Your task to perform on an android device: open app "The Home Depot" Image 0: 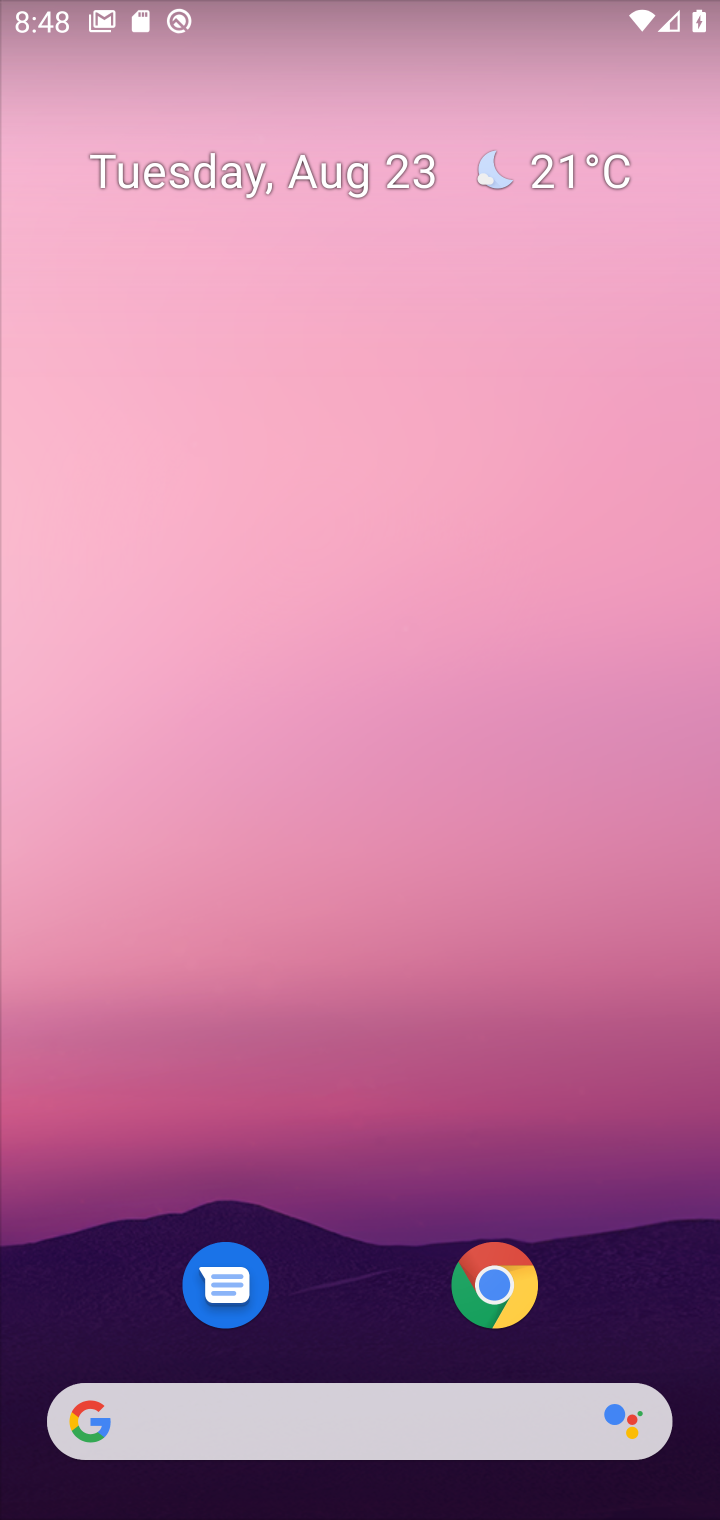
Step 0: drag from (678, 1275) to (550, 265)
Your task to perform on an android device: open app "The Home Depot" Image 1: 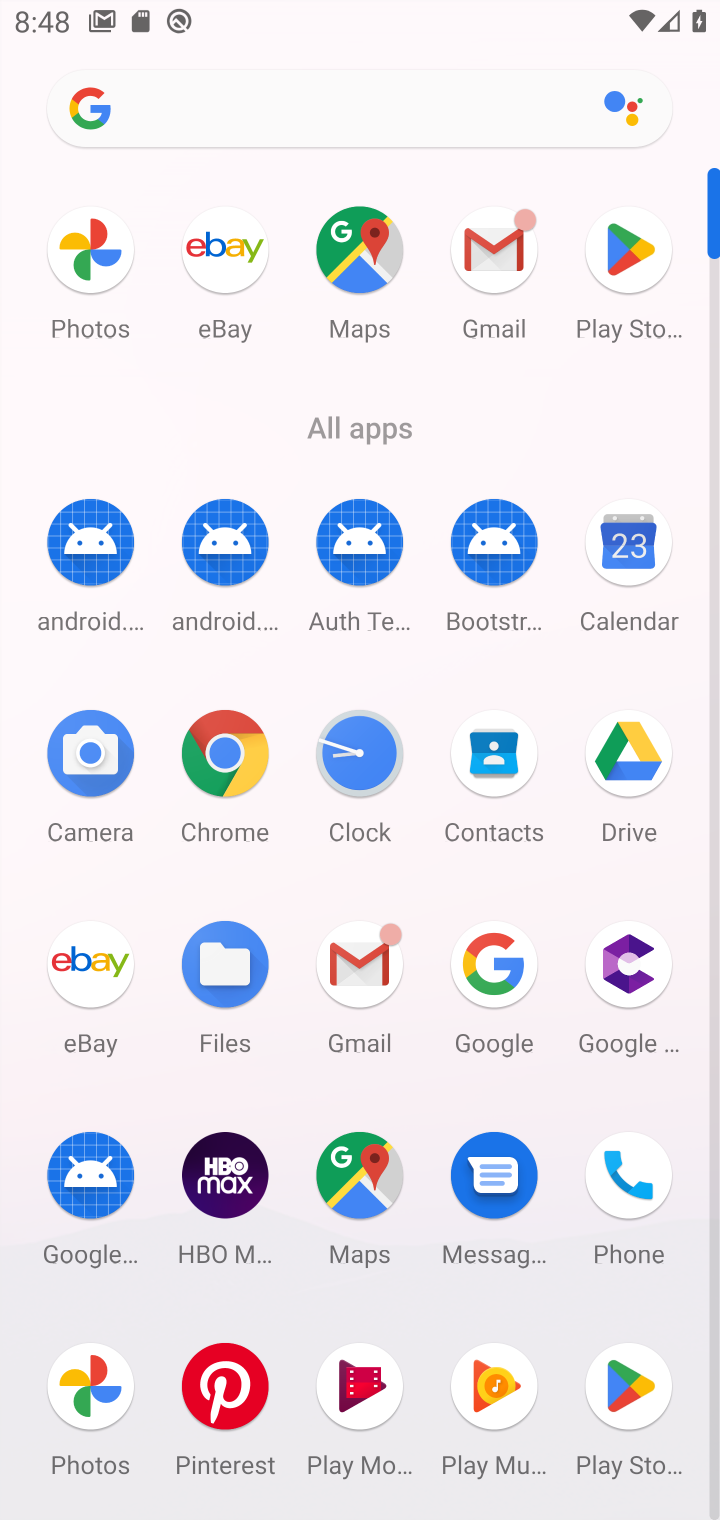
Step 1: click (633, 1387)
Your task to perform on an android device: open app "The Home Depot" Image 2: 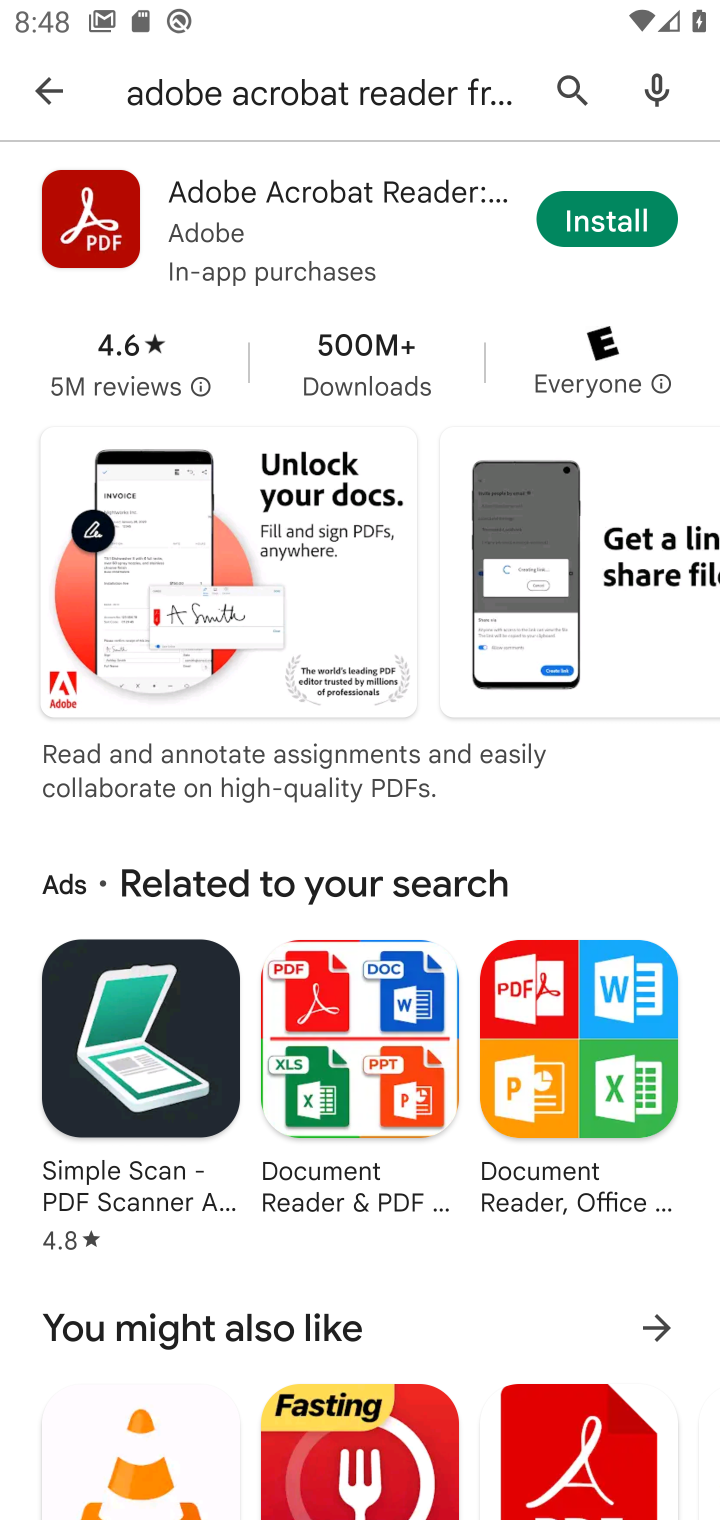
Step 2: click (565, 77)
Your task to perform on an android device: open app "The Home Depot" Image 3: 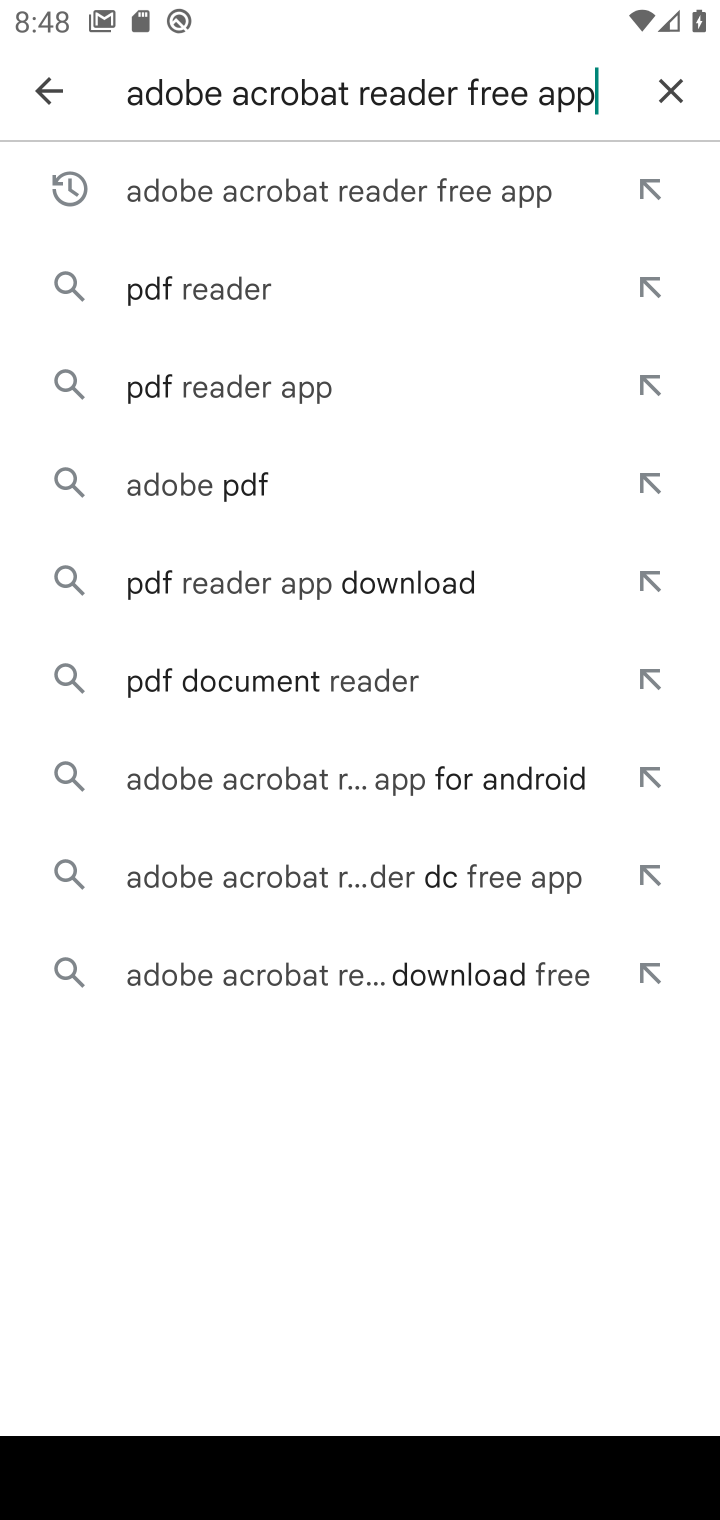
Step 3: click (675, 93)
Your task to perform on an android device: open app "The Home Depot" Image 4: 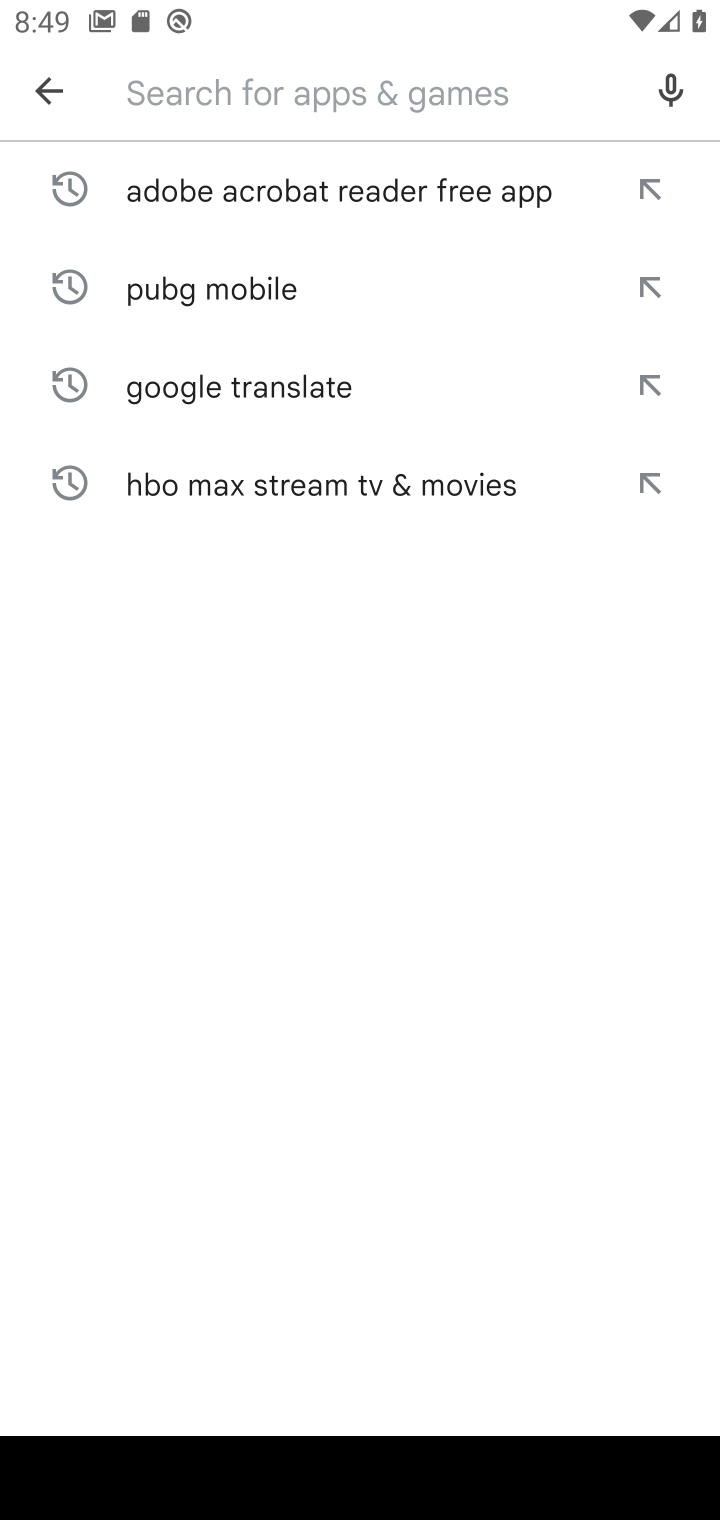
Step 4: type "The Home Depot"
Your task to perform on an android device: open app "The Home Depot" Image 5: 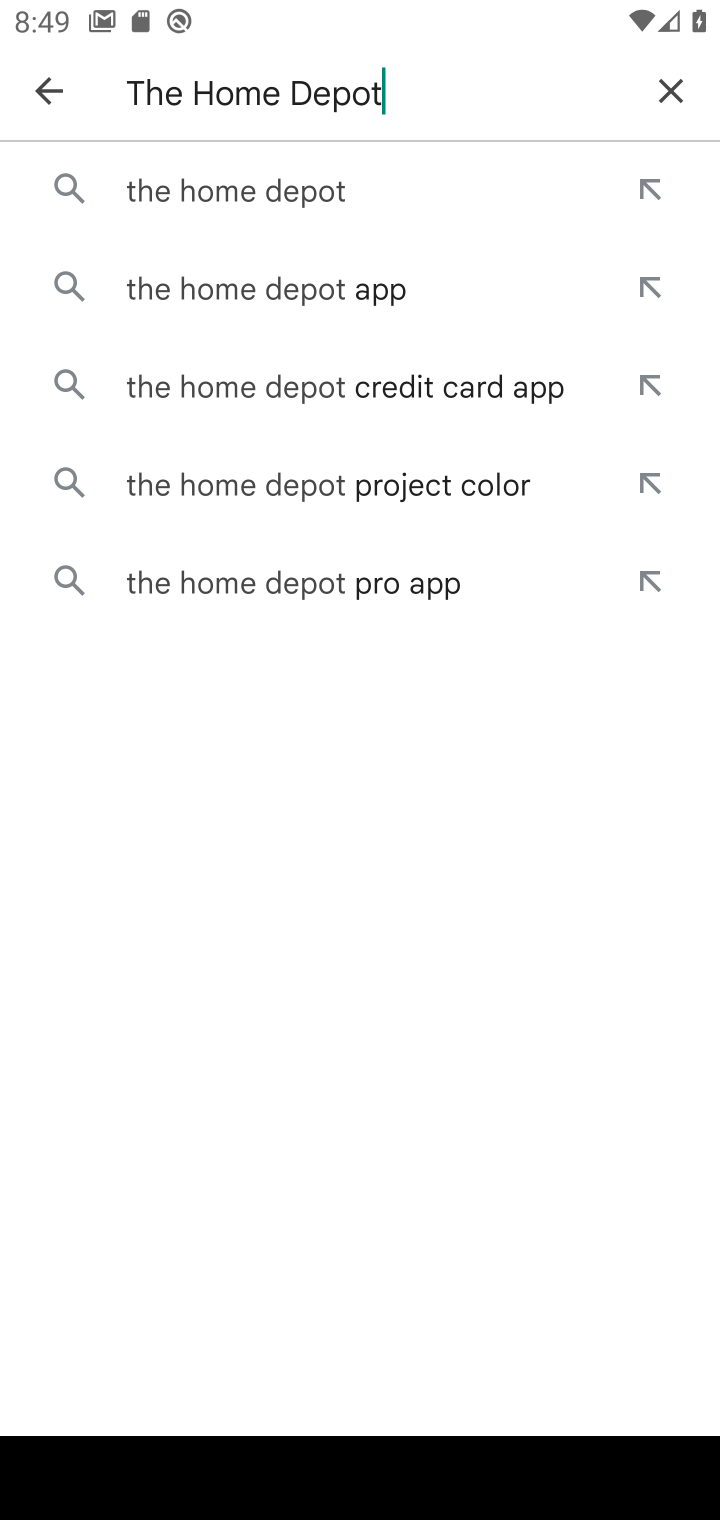
Step 5: click (215, 184)
Your task to perform on an android device: open app "The Home Depot" Image 6: 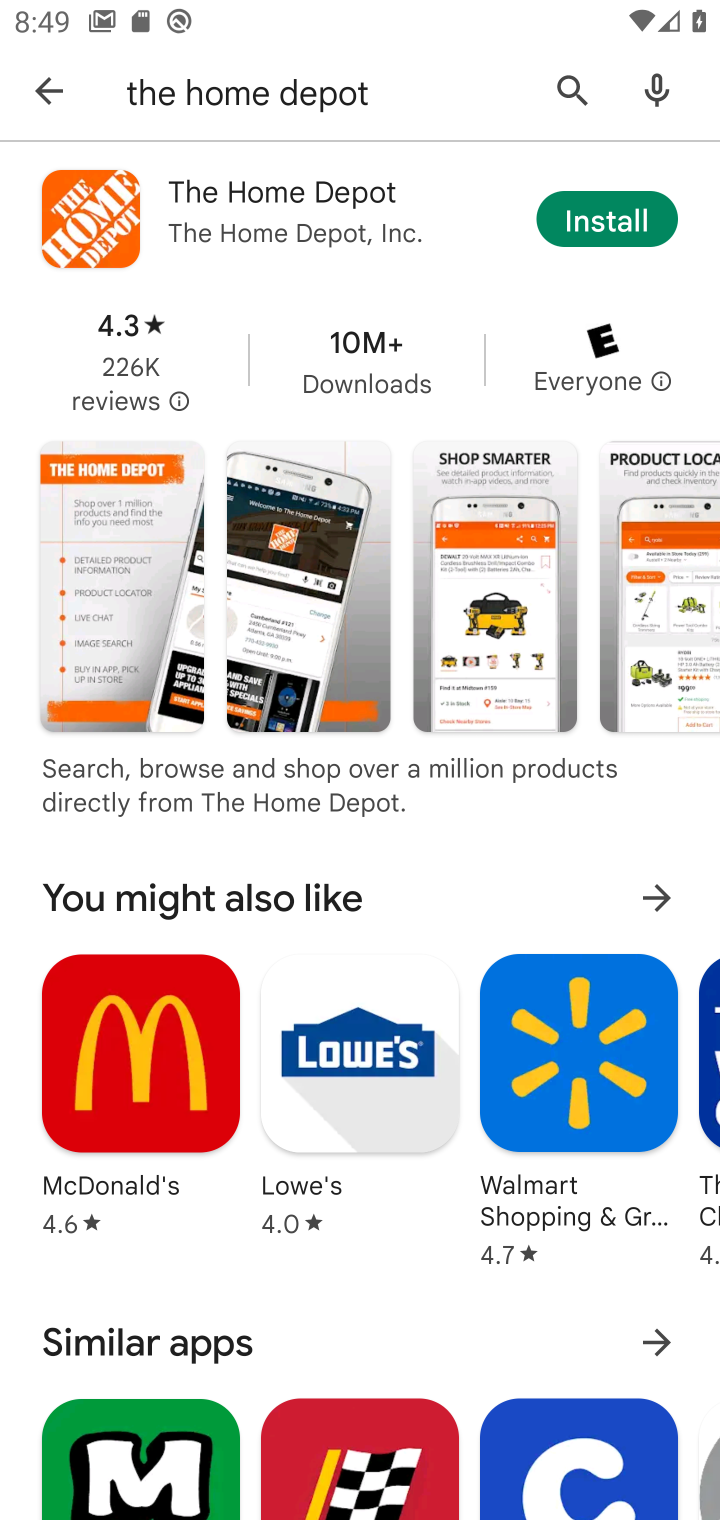
Step 6: task complete